Your task to perform on an android device: turn on translation in the chrome app Image 0: 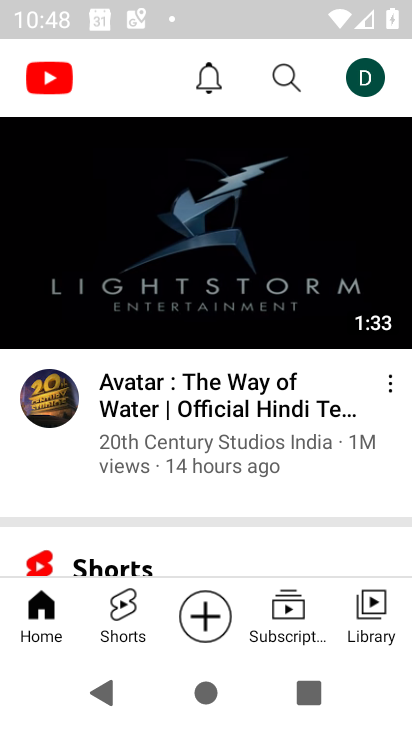
Step 0: press back button
Your task to perform on an android device: turn on translation in the chrome app Image 1: 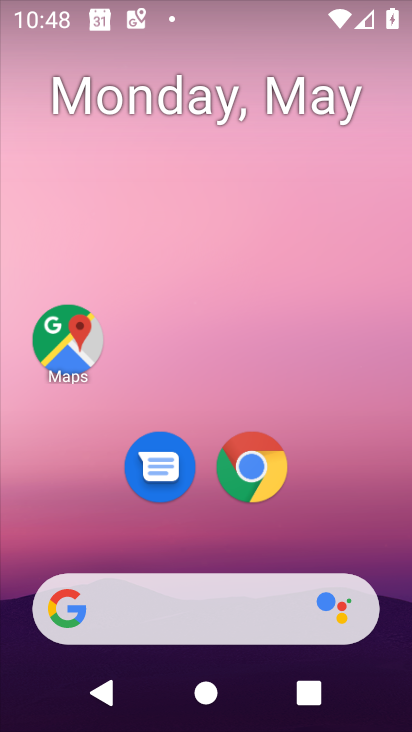
Step 1: drag from (272, 385) to (136, 90)
Your task to perform on an android device: turn on translation in the chrome app Image 2: 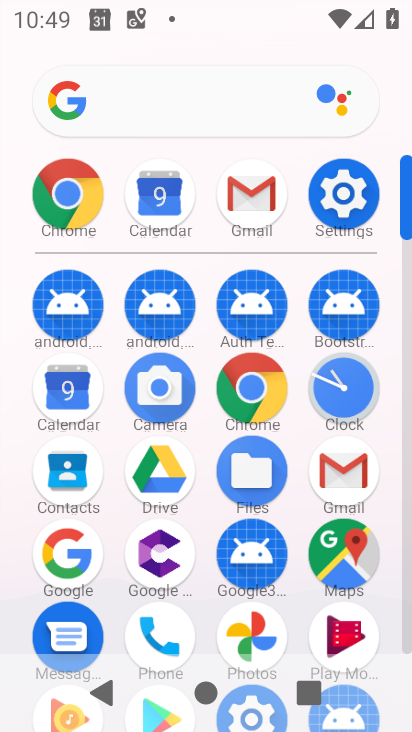
Step 2: click (84, 191)
Your task to perform on an android device: turn on translation in the chrome app Image 3: 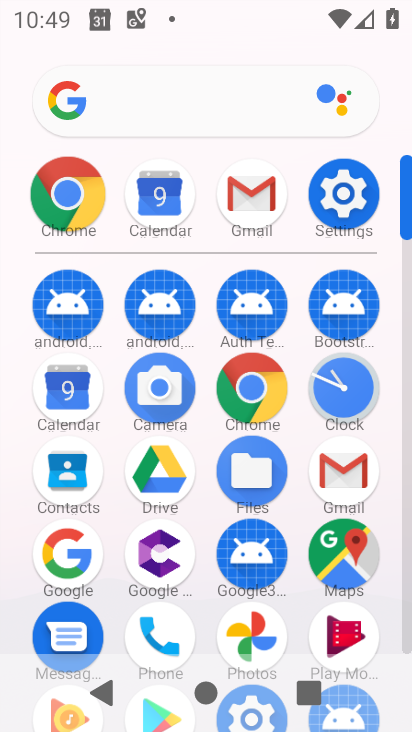
Step 3: click (84, 192)
Your task to perform on an android device: turn on translation in the chrome app Image 4: 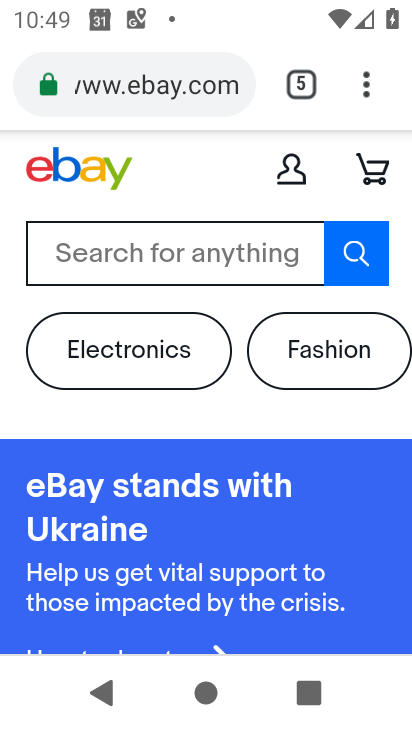
Step 4: drag from (362, 93) to (100, 527)
Your task to perform on an android device: turn on translation in the chrome app Image 5: 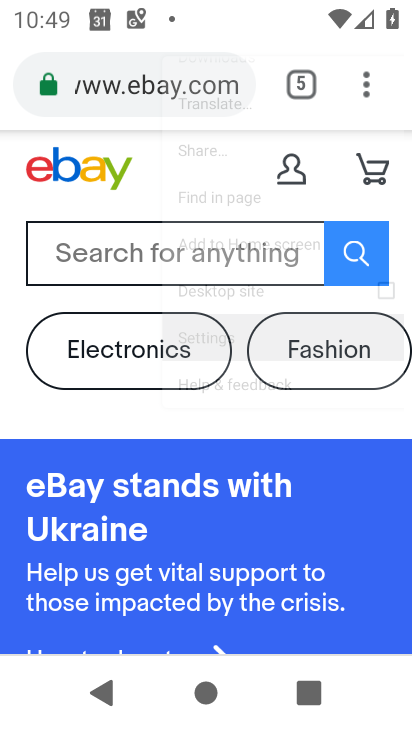
Step 5: click (100, 527)
Your task to perform on an android device: turn on translation in the chrome app Image 6: 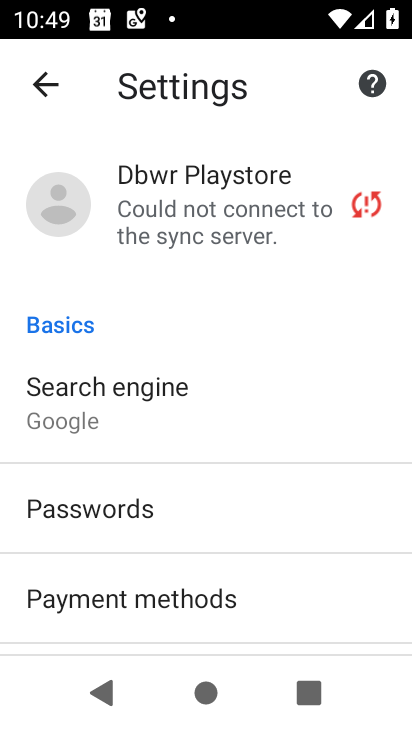
Step 6: drag from (183, 477) to (160, 206)
Your task to perform on an android device: turn on translation in the chrome app Image 7: 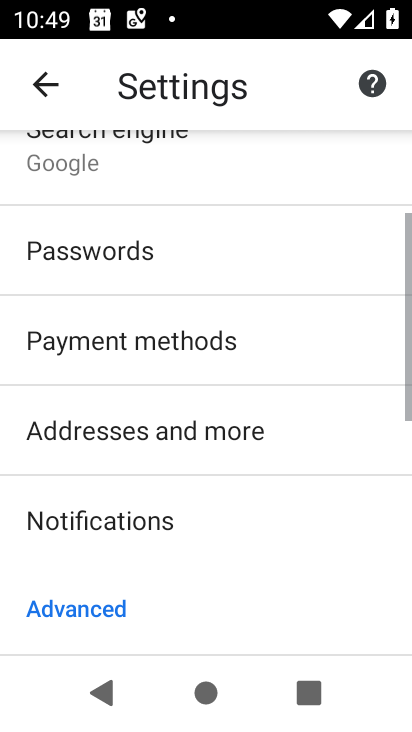
Step 7: drag from (194, 393) to (163, 199)
Your task to perform on an android device: turn on translation in the chrome app Image 8: 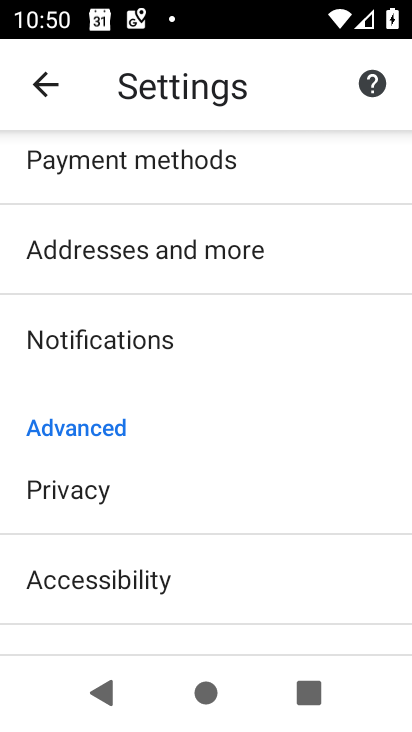
Step 8: drag from (107, 262) to (209, 473)
Your task to perform on an android device: turn on translation in the chrome app Image 9: 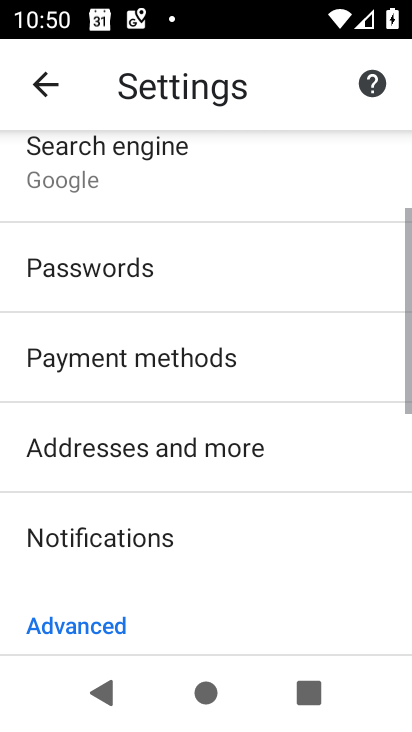
Step 9: drag from (98, 222) to (183, 458)
Your task to perform on an android device: turn on translation in the chrome app Image 10: 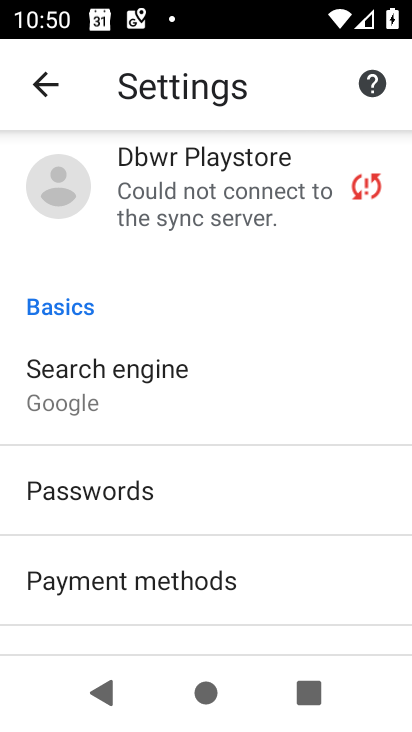
Step 10: drag from (108, 527) to (121, 214)
Your task to perform on an android device: turn on translation in the chrome app Image 11: 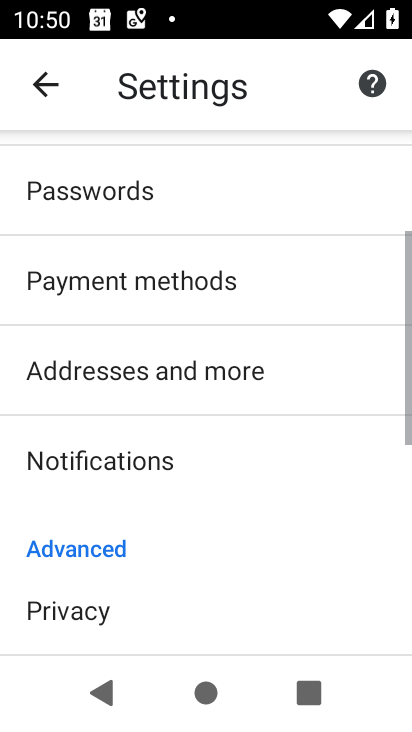
Step 11: drag from (193, 398) to (149, 246)
Your task to perform on an android device: turn on translation in the chrome app Image 12: 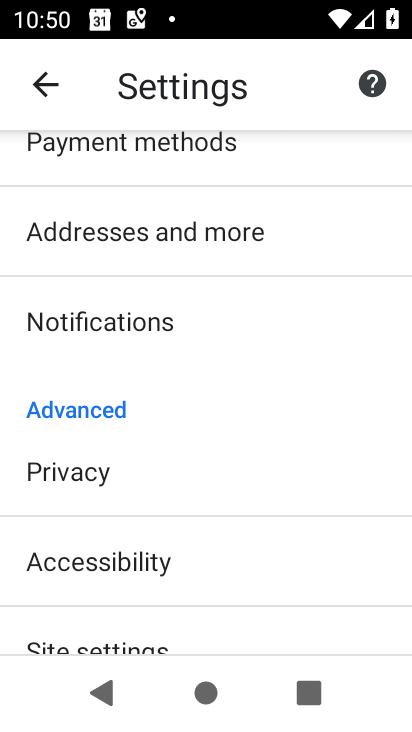
Step 12: drag from (103, 548) to (97, 226)
Your task to perform on an android device: turn on translation in the chrome app Image 13: 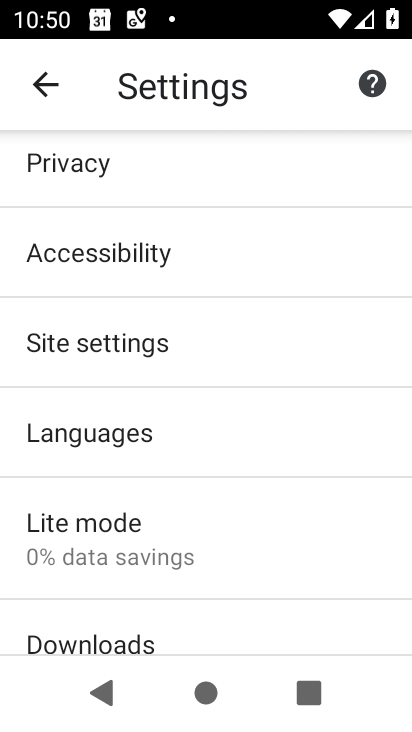
Step 13: click (79, 337)
Your task to perform on an android device: turn on translation in the chrome app Image 14: 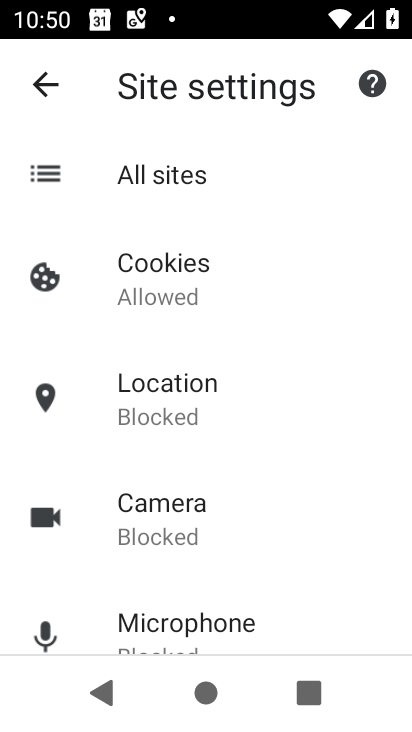
Step 14: click (50, 79)
Your task to perform on an android device: turn on translation in the chrome app Image 15: 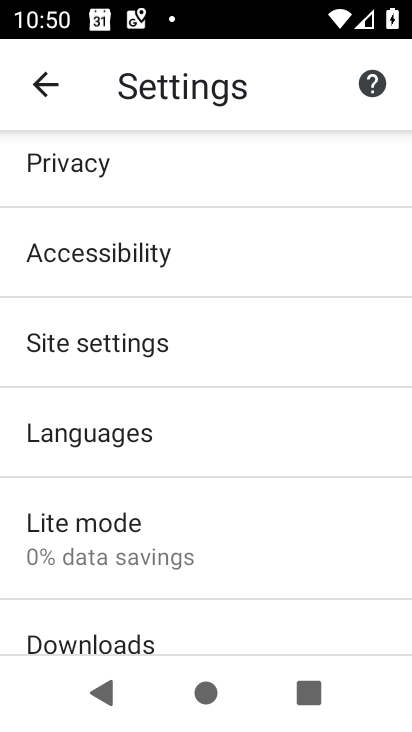
Step 15: click (73, 438)
Your task to perform on an android device: turn on translation in the chrome app Image 16: 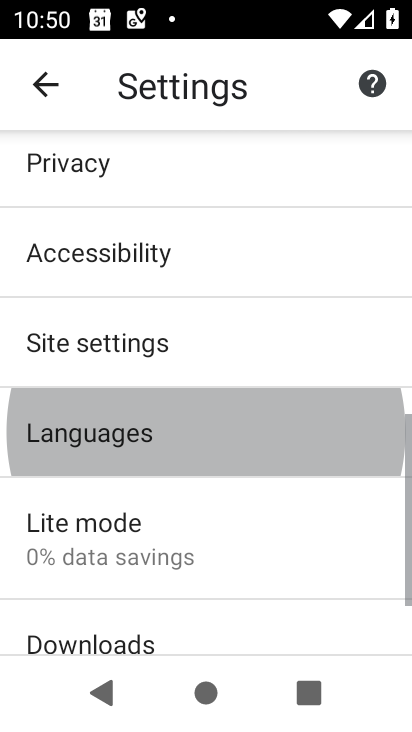
Step 16: click (74, 437)
Your task to perform on an android device: turn on translation in the chrome app Image 17: 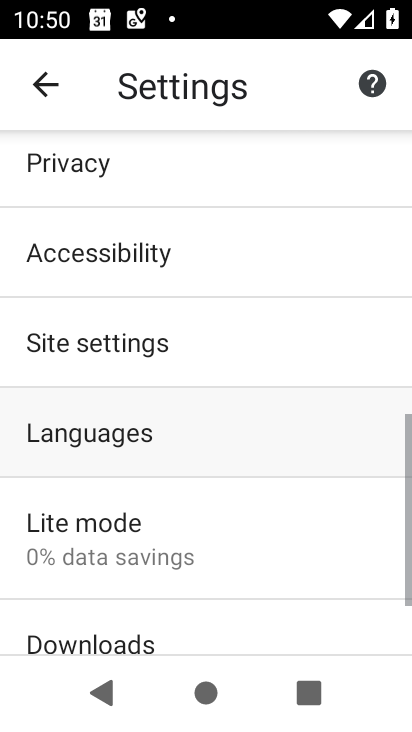
Step 17: click (75, 436)
Your task to perform on an android device: turn on translation in the chrome app Image 18: 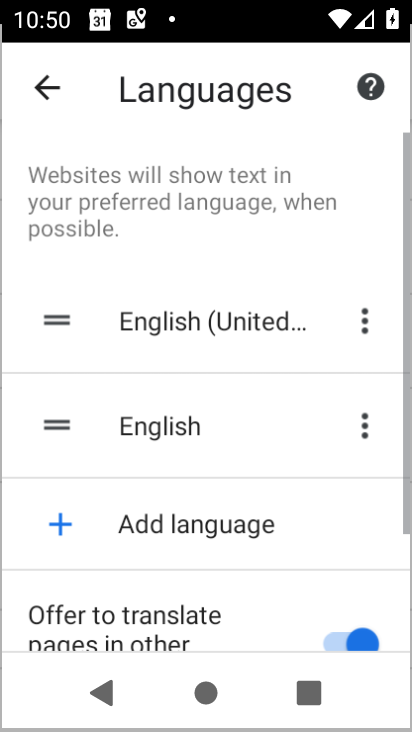
Step 18: click (76, 435)
Your task to perform on an android device: turn on translation in the chrome app Image 19: 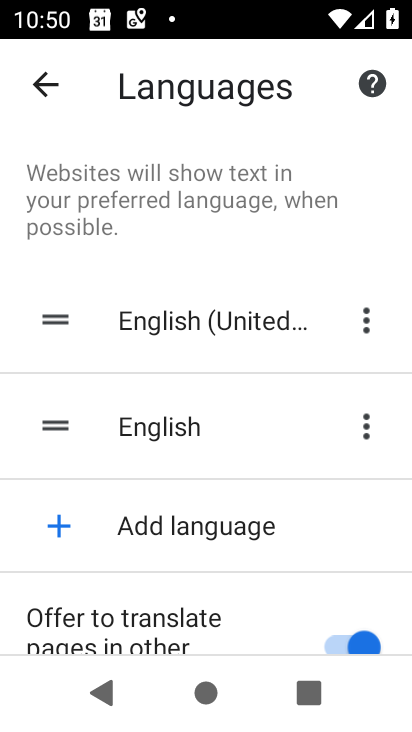
Step 19: task complete